Your task to perform on an android device: Go to Reddit.com Image 0: 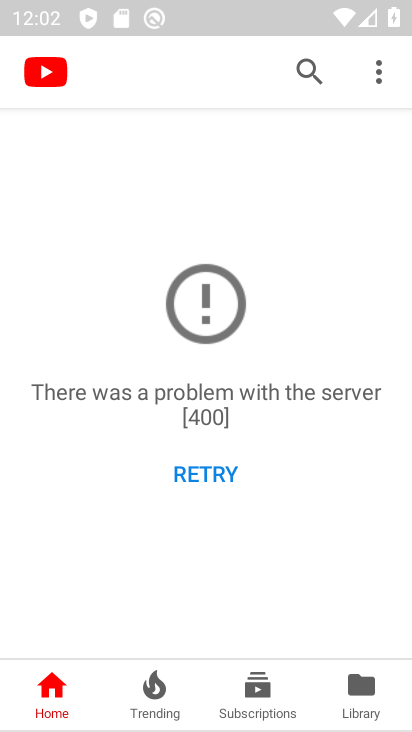
Step 0: press home button
Your task to perform on an android device: Go to Reddit.com Image 1: 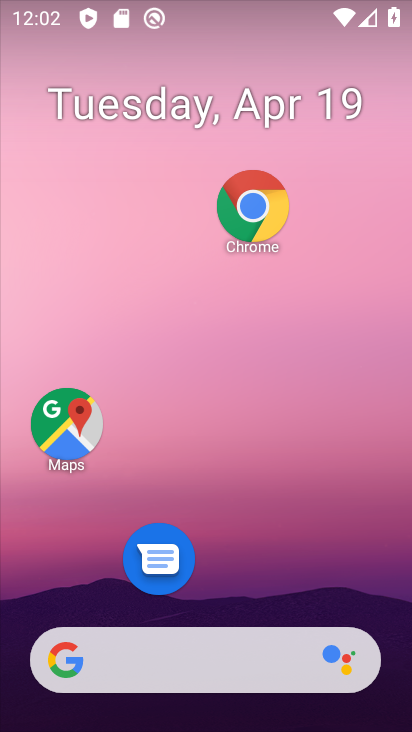
Step 1: drag from (265, 632) to (285, 97)
Your task to perform on an android device: Go to Reddit.com Image 2: 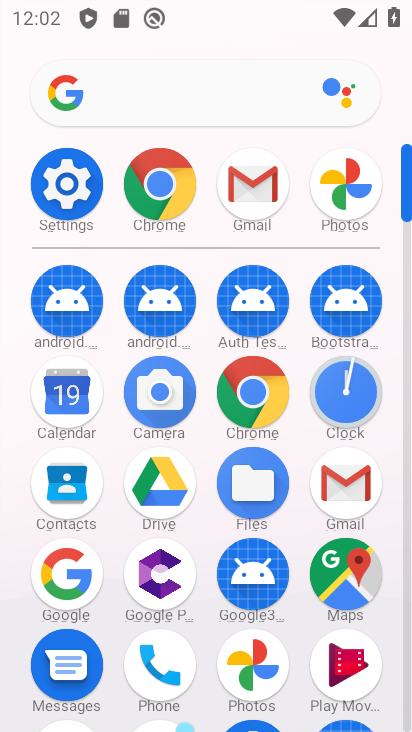
Step 2: click (246, 396)
Your task to perform on an android device: Go to Reddit.com Image 3: 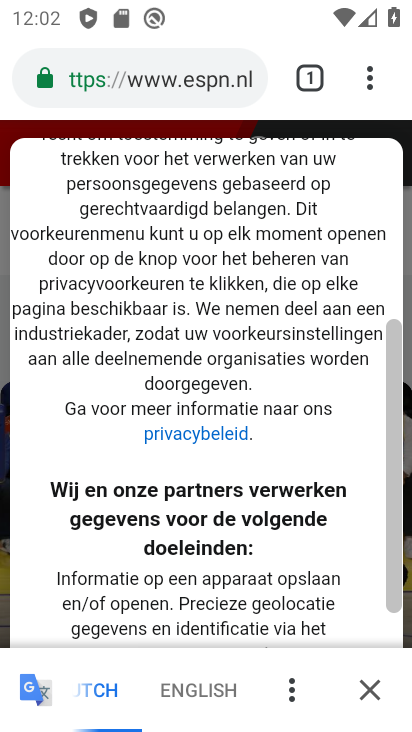
Step 3: click (231, 76)
Your task to perform on an android device: Go to Reddit.com Image 4: 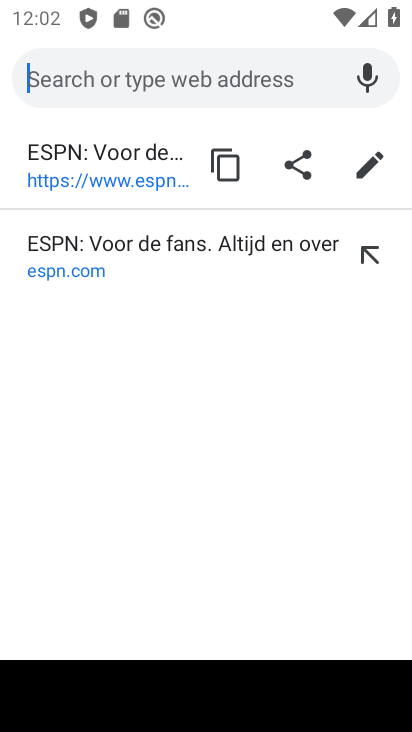
Step 4: type "reddit.com"
Your task to perform on an android device: Go to Reddit.com Image 5: 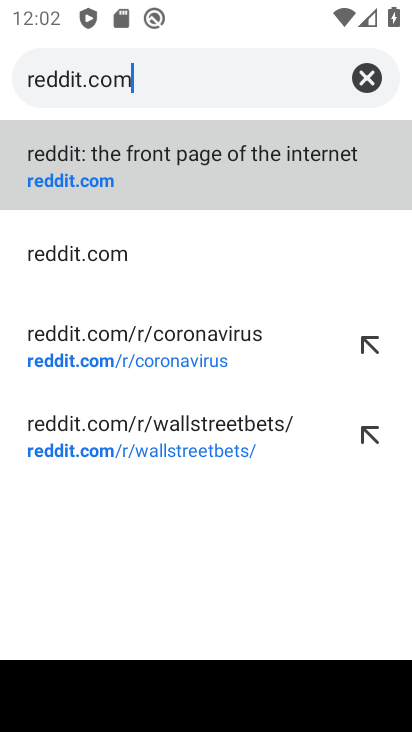
Step 5: click (137, 264)
Your task to perform on an android device: Go to Reddit.com Image 6: 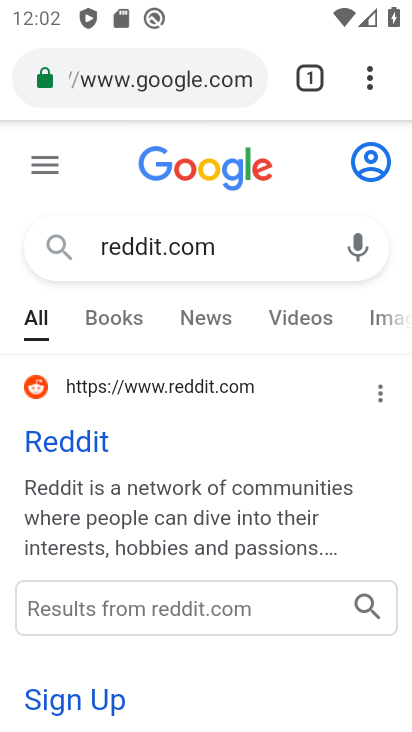
Step 6: click (64, 439)
Your task to perform on an android device: Go to Reddit.com Image 7: 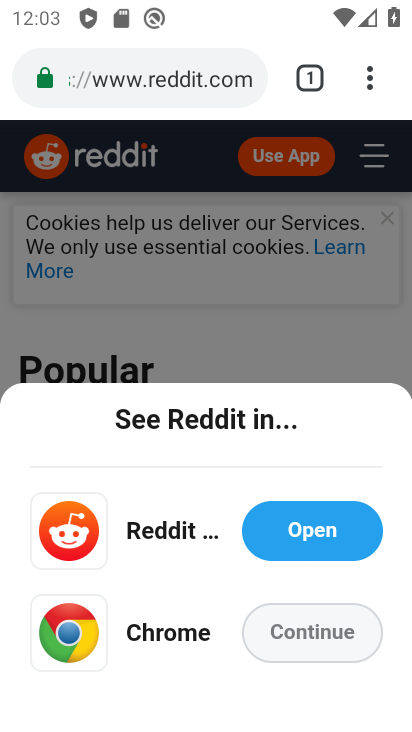
Step 7: task complete